Your task to perform on an android device: Open location settings Image 0: 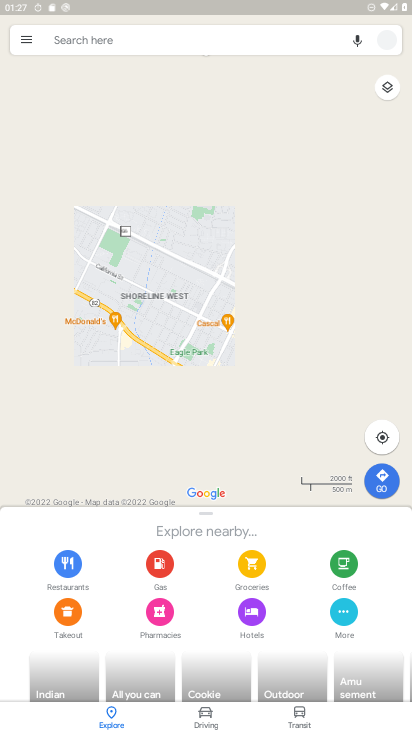
Step 0: press home button
Your task to perform on an android device: Open location settings Image 1: 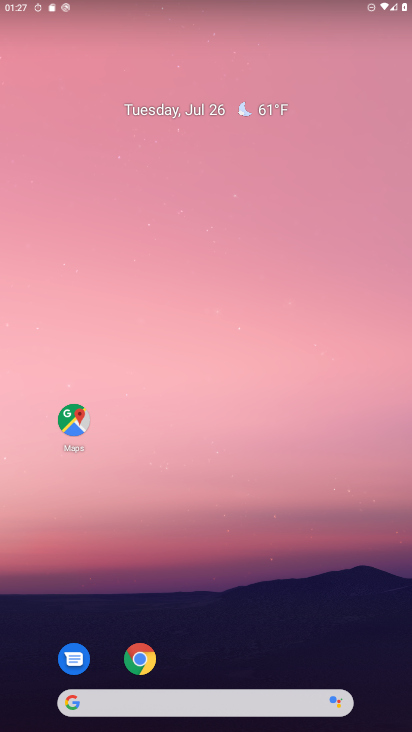
Step 1: drag from (40, 675) to (247, 24)
Your task to perform on an android device: Open location settings Image 2: 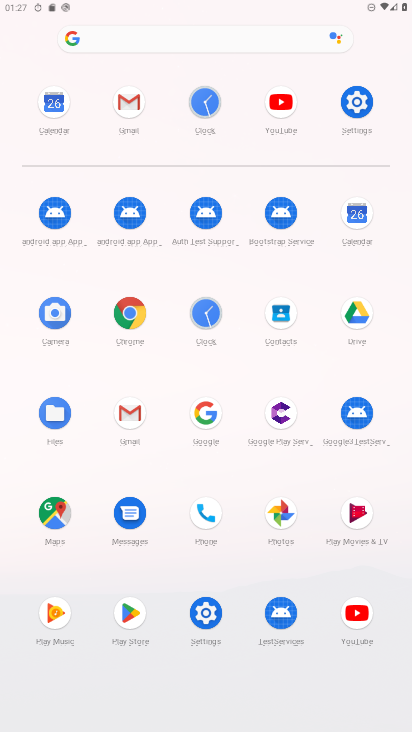
Step 2: click (200, 607)
Your task to perform on an android device: Open location settings Image 3: 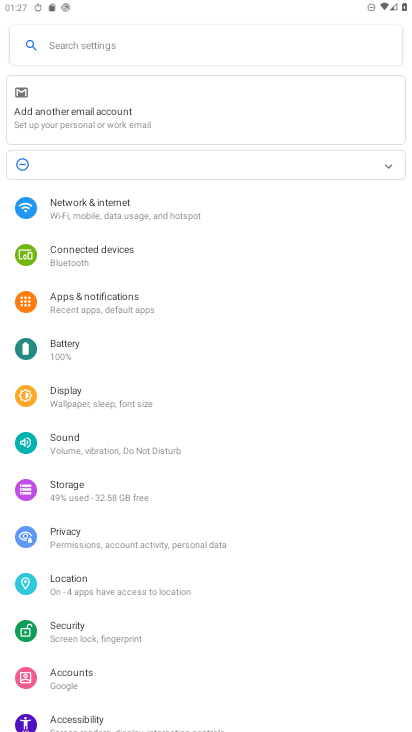
Step 3: click (86, 597)
Your task to perform on an android device: Open location settings Image 4: 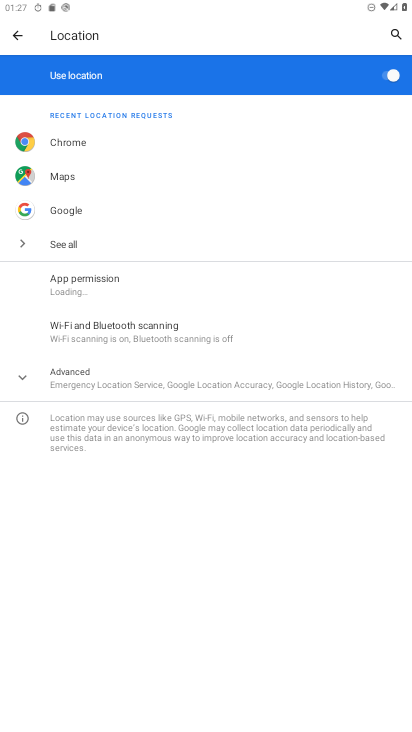
Step 4: click (74, 381)
Your task to perform on an android device: Open location settings Image 5: 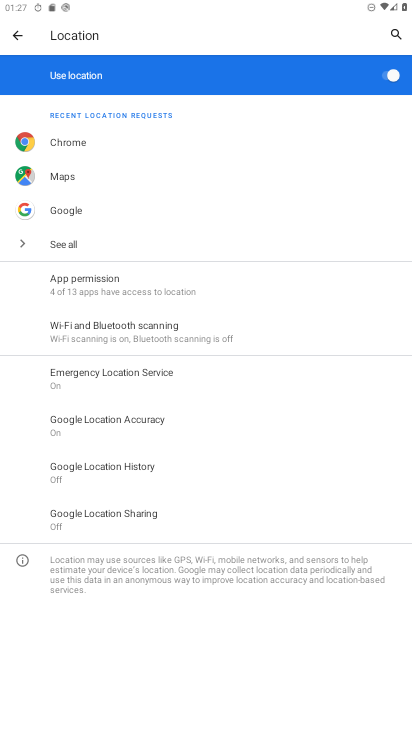
Step 5: task complete